Your task to perform on an android device: Check the news Image 0: 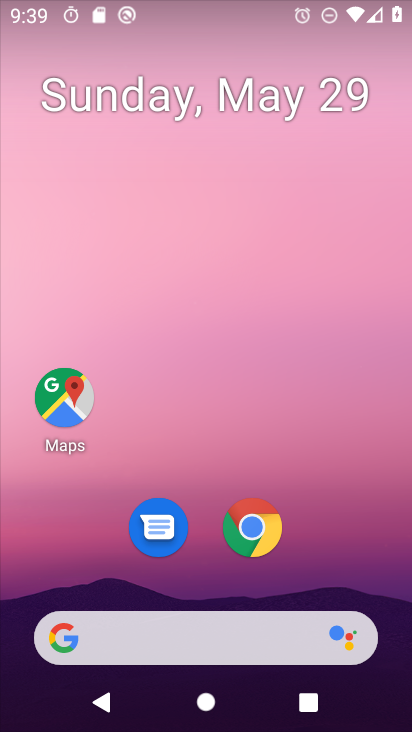
Step 0: drag from (384, 611) to (313, 72)
Your task to perform on an android device: Check the news Image 1: 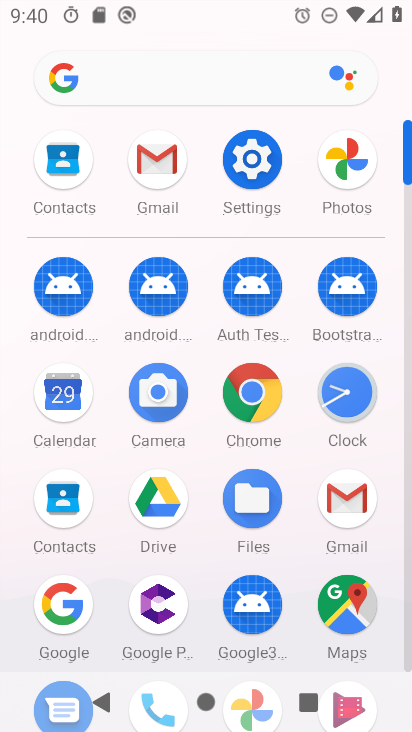
Step 1: click (75, 592)
Your task to perform on an android device: Check the news Image 2: 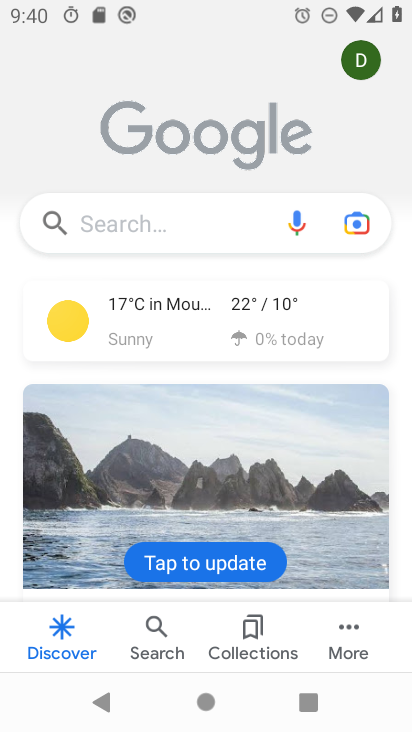
Step 2: click (173, 225)
Your task to perform on an android device: Check the news Image 3: 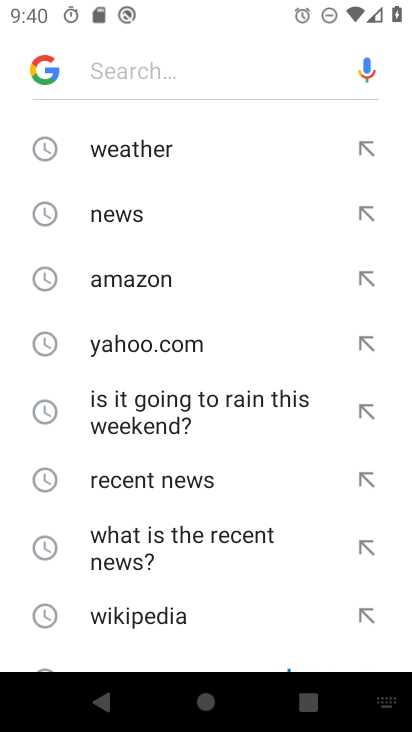
Step 3: click (150, 212)
Your task to perform on an android device: Check the news Image 4: 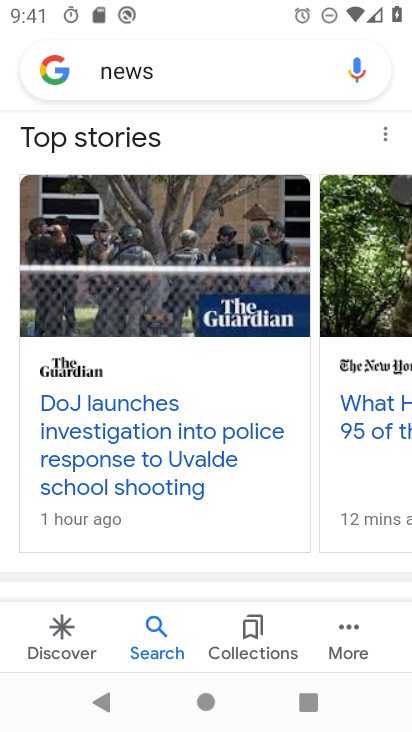
Step 4: task complete